Your task to perform on an android device: set the stopwatch Image 0: 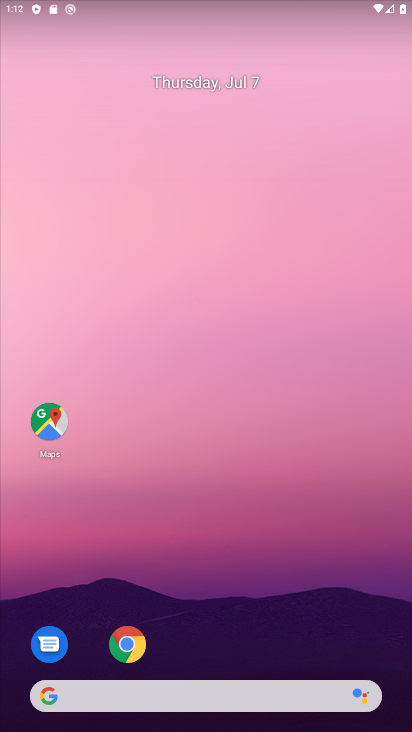
Step 0: drag from (187, 672) to (193, 41)
Your task to perform on an android device: set the stopwatch Image 1: 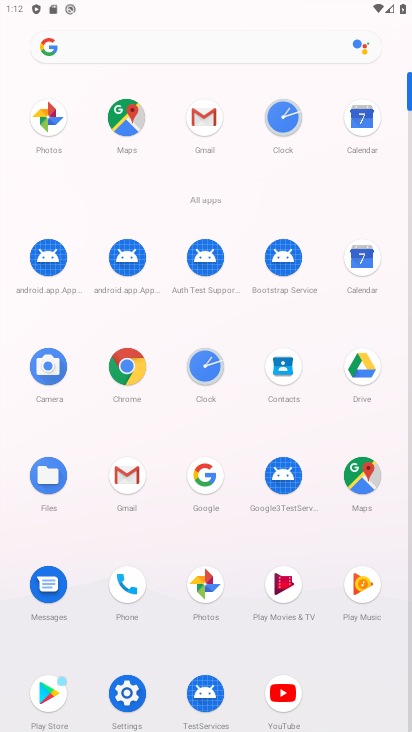
Step 1: click (196, 379)
Your task to perform on an android device: set the stopwatch Image 2: 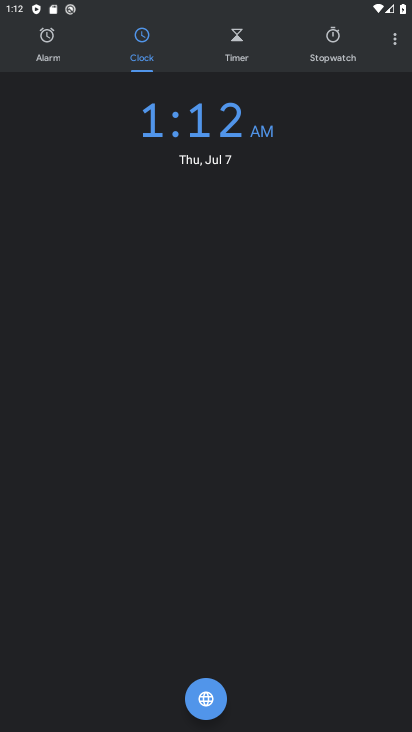
Step 2: click (326, 57)
Your task to perform on an android device: set the stopwatch Image 3: 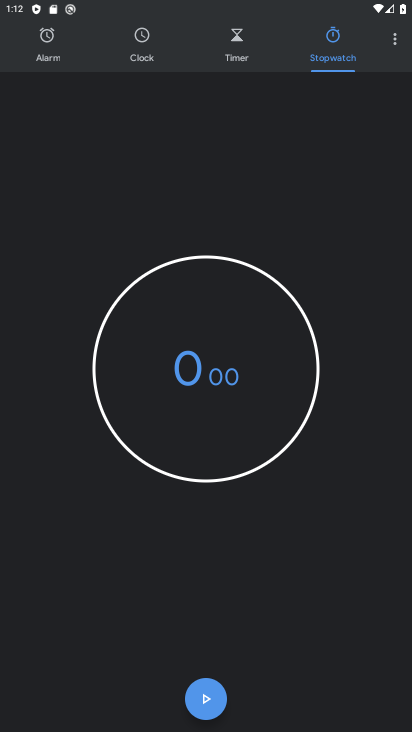
Step 3: type "8888"
Your task to perform on an android device: set the stopwatch Image 4: 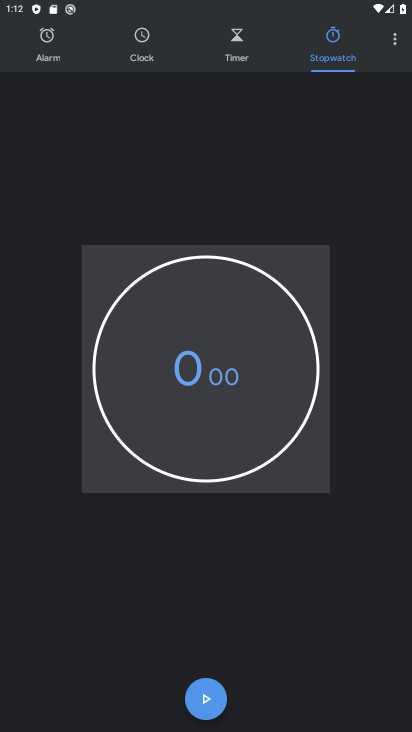
Step 4: click (223, 354)
Your task to perform on an android device: set the stopwatch Image 5: 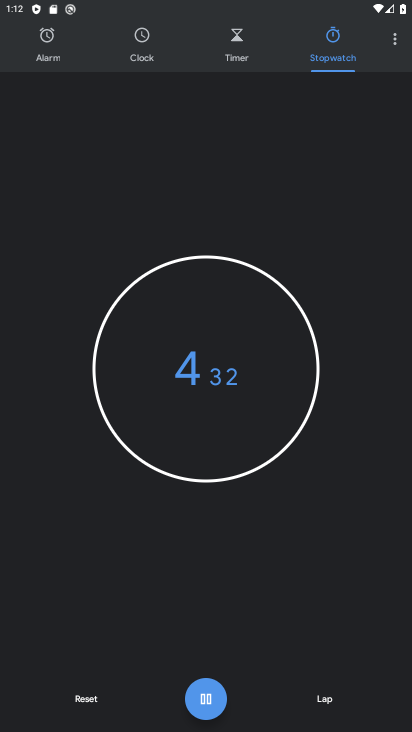
Step 5: type "888"
Your task to perform on an android device: set the stopwatch Image 6: 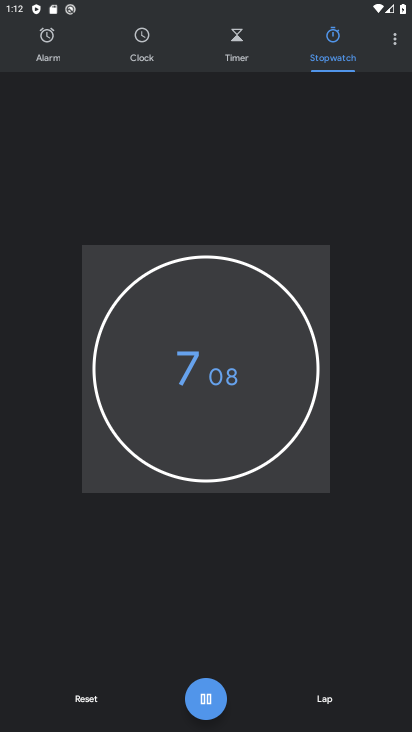
Step 6: task complete